Your task to perform on an android device: toggle translation in the chrome app Image 0: 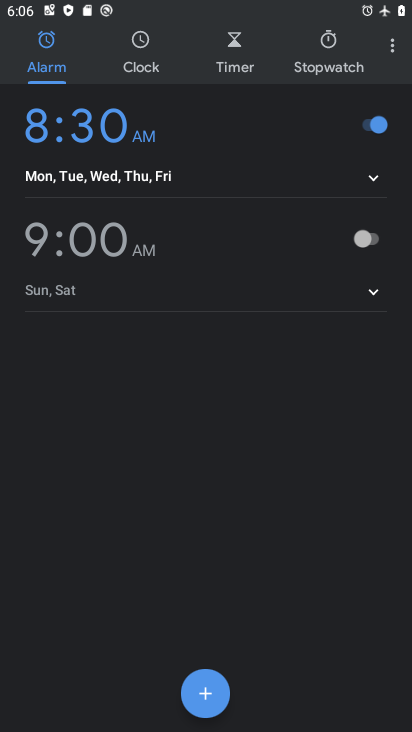
Step 0: press home button
Your task to perform on an android device: toggle translation in the chrome app Image 1: 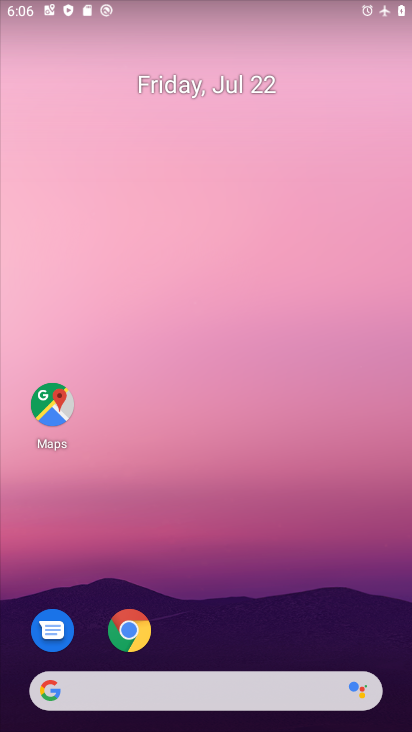
Step 1: drag from (327, 576) to (360, 18)
Your task to perform on an android device: toggle translation in the chrome app Image 2: 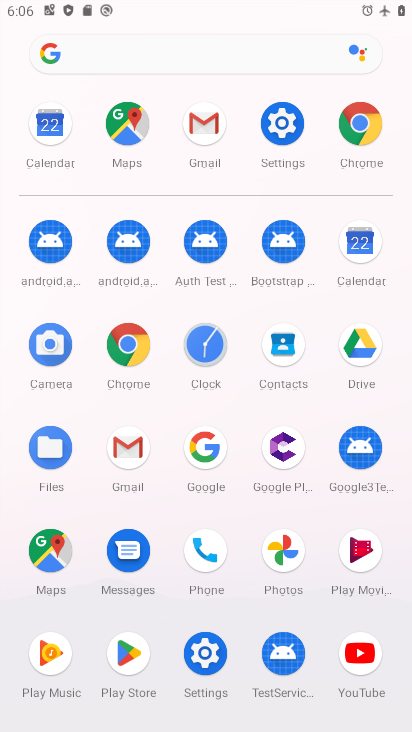
Step 2: click (127, 347)
Your task to perform on an android device: toggle translation in the chrome app Image 3: 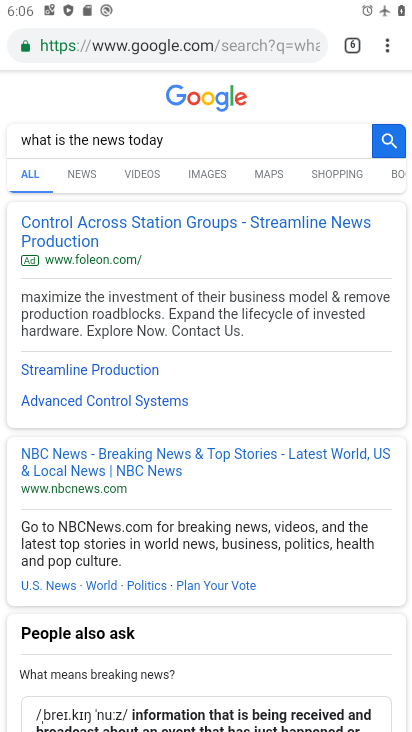
Step 3: drag from (386, 31) to (245, 506)
Your task to perform on an android device: toggle translation in the chrome app Image 4: 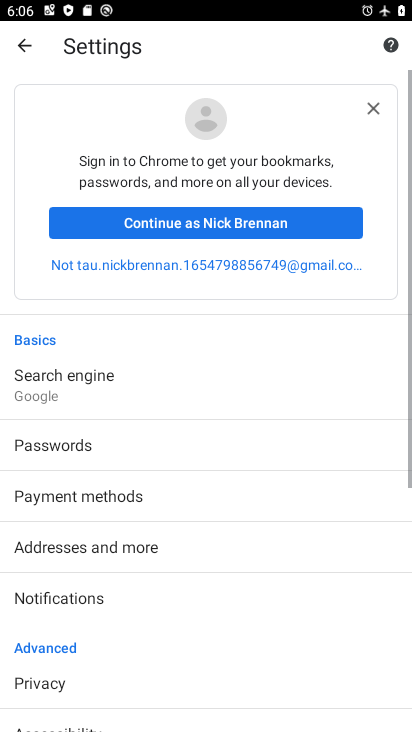
Step 4: drag from (158, 552) to (222, 200)
Your task to perform on an android device: toggle translation in the chrome app Image 5: 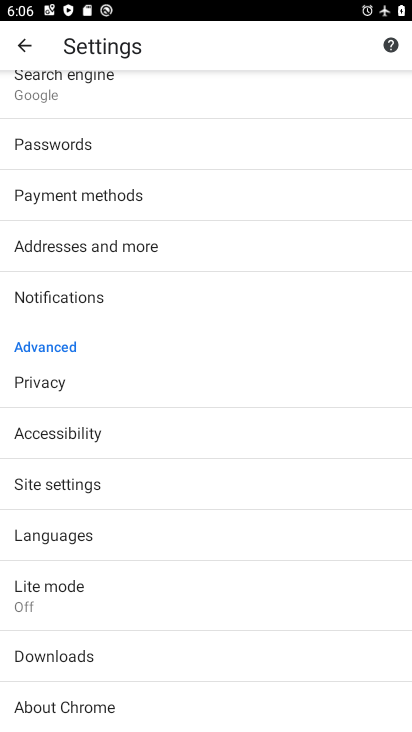
Step 5: click (75, 539)
Your task to perform on an android device: toggle translation in the chrome app Image 6: 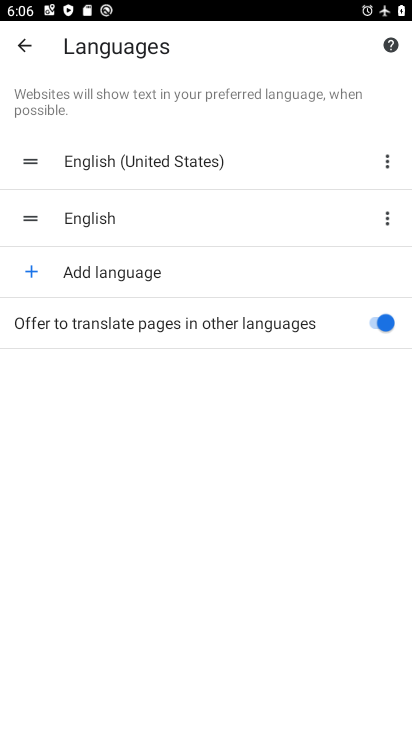
Step 6: click (380, 326)
Your task to perform on an android device: toggle translation in the chrome app Image 7: 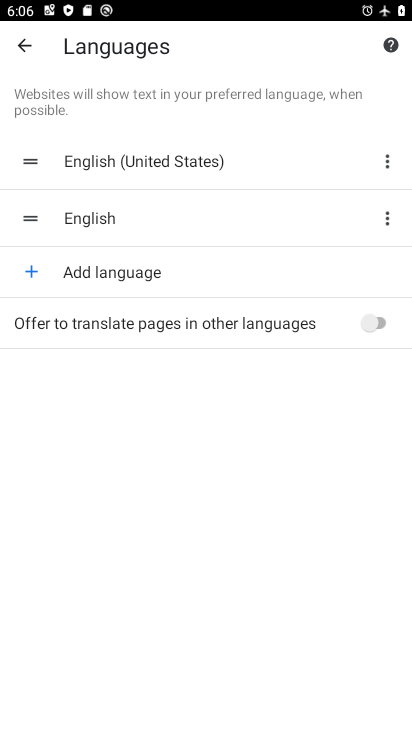
Step 7: task complete